Your task to perform on an android device: Open calendar and show me the first week of next month Image 0: 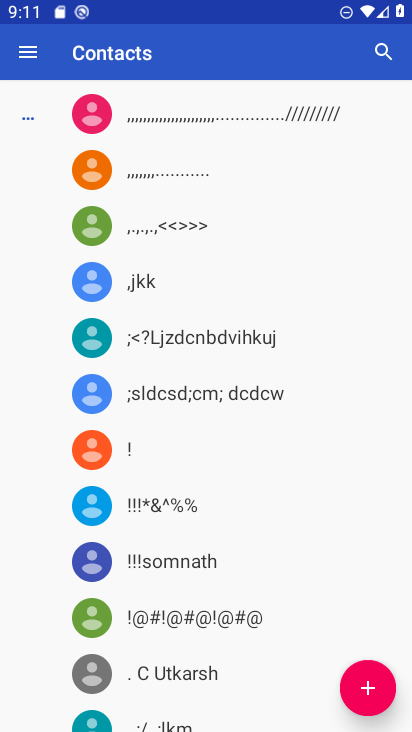
Step 0: press home button
Your task to perform on an android device: Open calendar and show me the first week of next month Image 1: 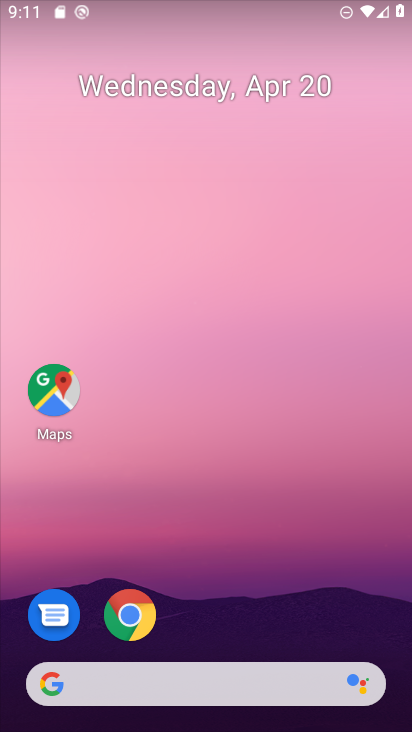
Step 1: drag from (208, 635) to (268, 68)
Your task to perform on an android device: Open calendar and show me the first week of next month Image 2: 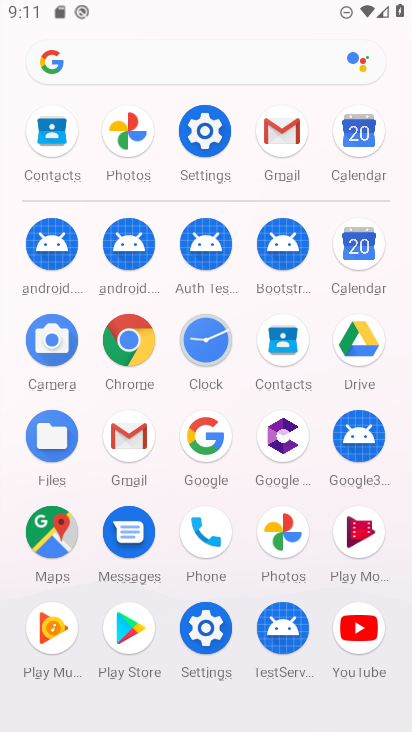
Step 2: click (360, 247)
Your task to perform on an android device: Open calendar and show me the first week of next month Image 3: 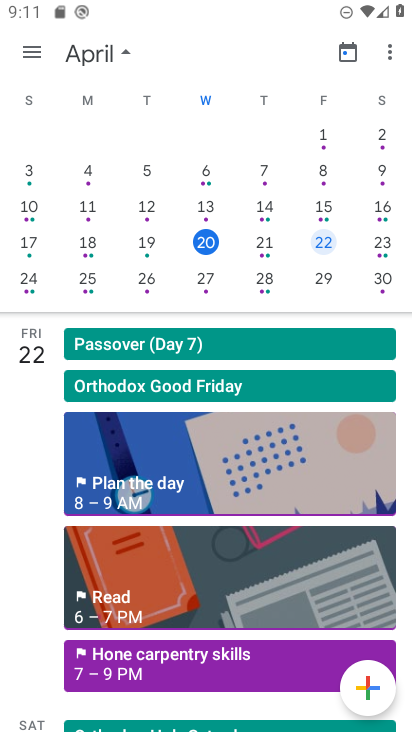
Step 3: click (126, 50)
Your task to perform on an android device: Open calendar and show me the first week of next month Image 4: 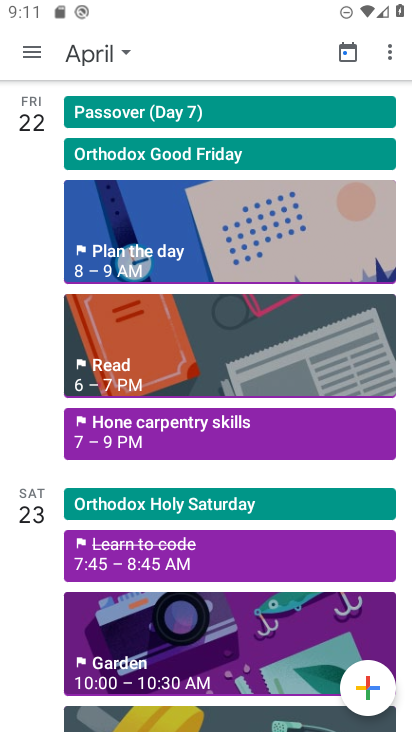
Step 4: click (126, 50)
Your task to perform on an android device: Open calendar and show me the first week of next month Image 5: 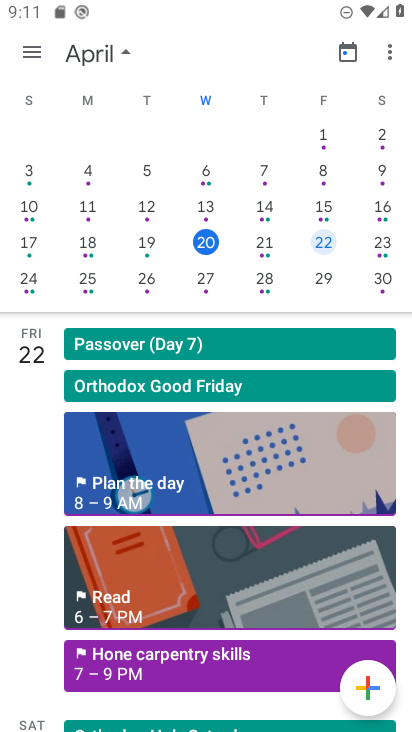
Step 5: drag from (361, 253) to (5, 180)
Your task to perform on an android device: Open calendar and show me the first week of next month Image 6: 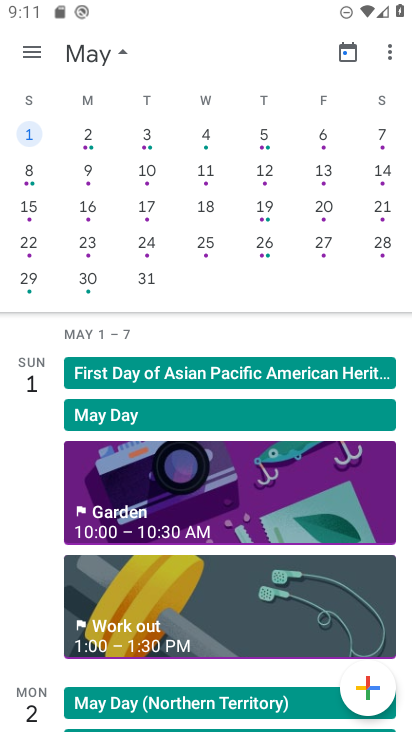
Step 6: click (90, 141)
Your task to perform on an android device: Open calendar and show me the first week of next month Image 7: 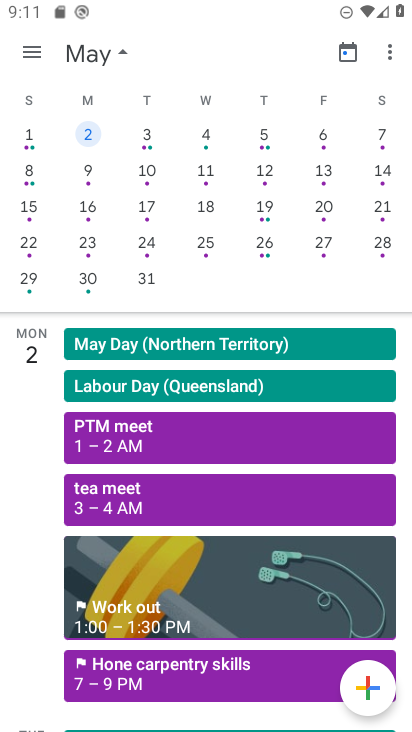
Step 7: click (25, 52)
Your task to perform on an android device: Open calendar and show me the first week of next month Image 8: 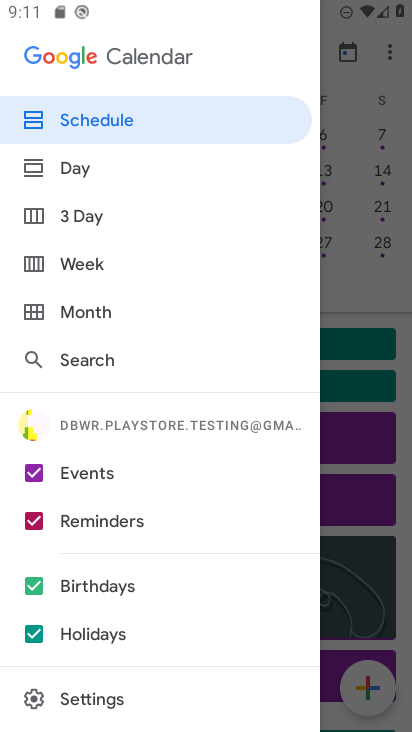
Step 8: click (89, 263)
Your task to perform on an android device: Open calendar and show me the first week of next month Image 9: 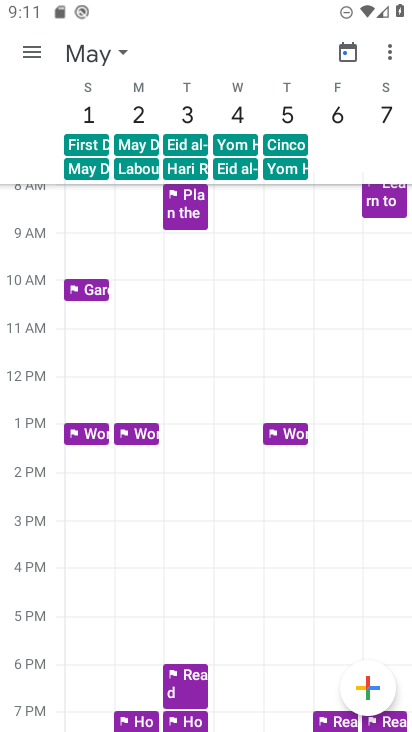
Step 9: task complete